Your task to perform on an android device: toggle notification dots Image 0: 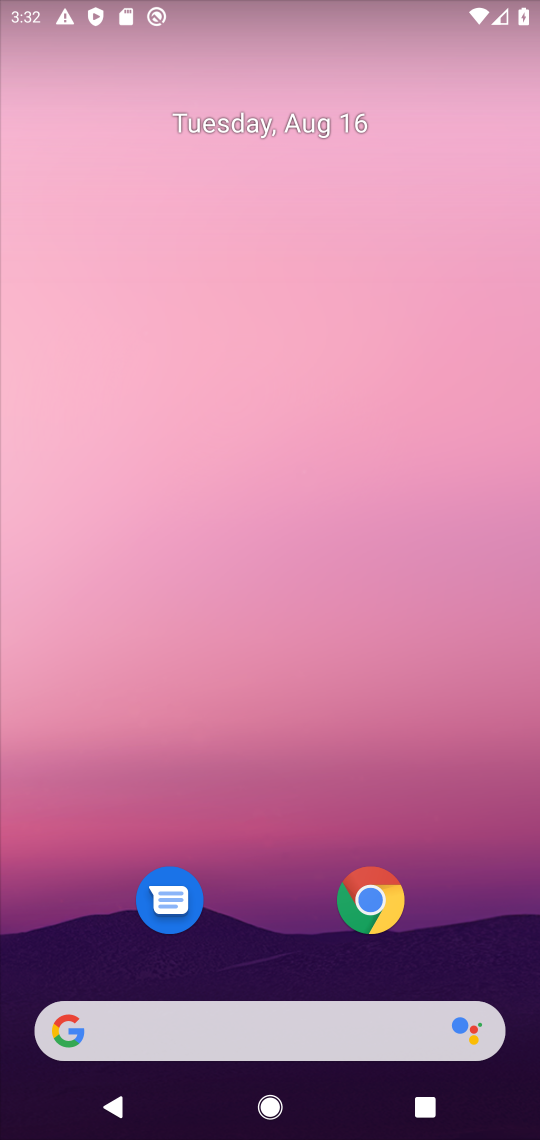
Step 0: drag from (253, 745) to (225, 5)
Your task to perform on an android device: toggle notification dots Image 1: 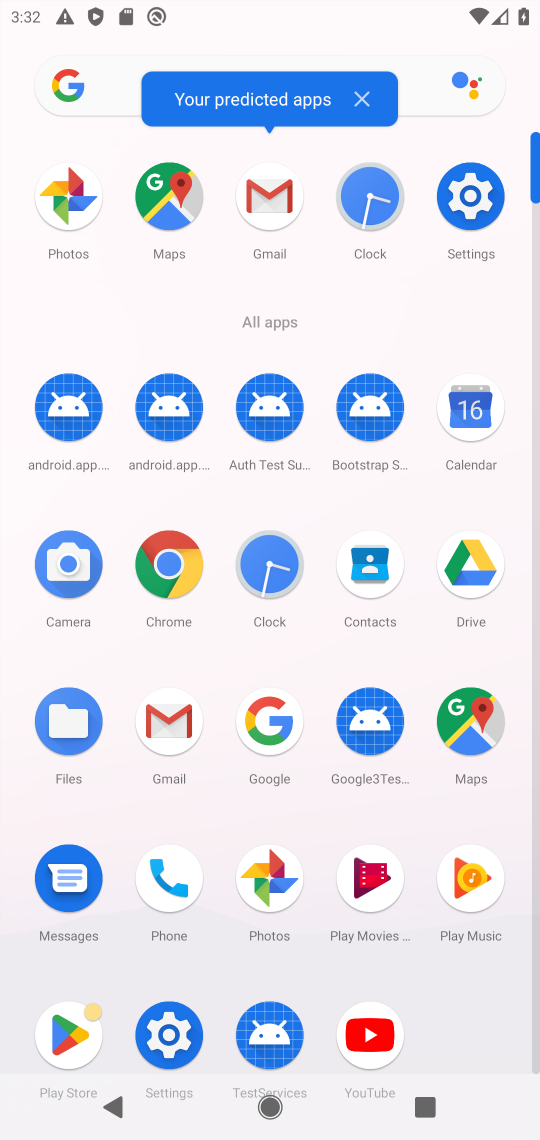
Step 1: drag from (281, 568) to (318, 189)
Your task to perform on an android device: toggle notification dots Image 2: 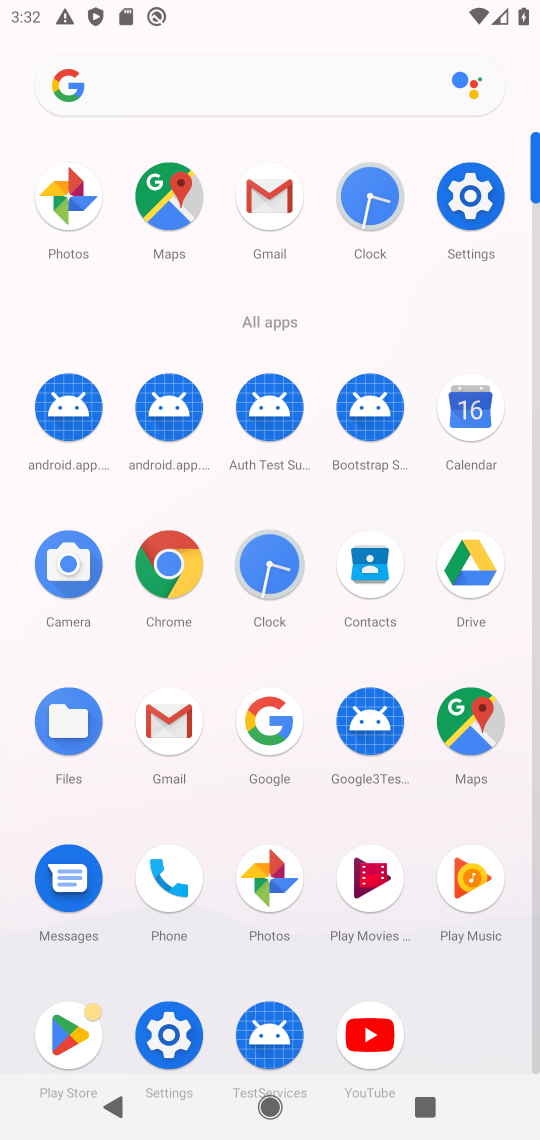
Step 2: drag from (295, 690) to (312, 151)
Your task to perform on an android device: toggle notification dots Image 3: 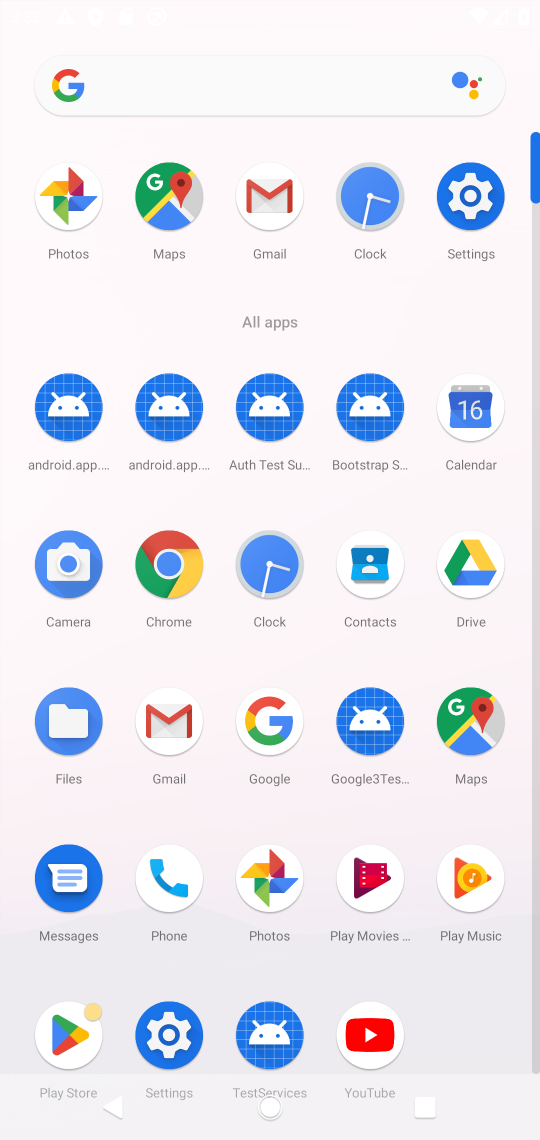
Step 3: click (478, 218)
Your task to perform on an android device: toggle notification dots Image 4: 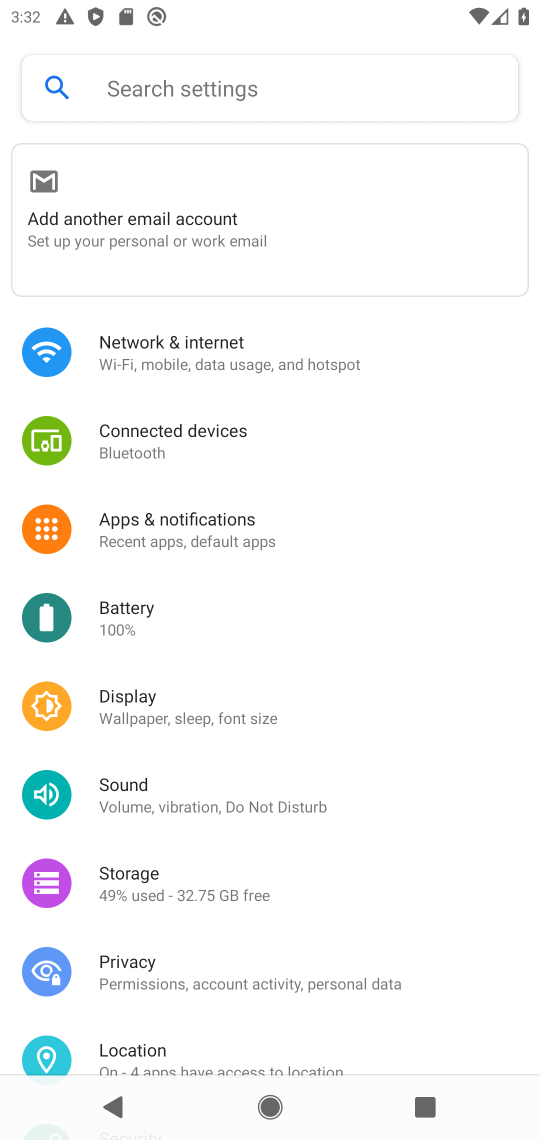
Step 4: click (245, 516)
Your task to perform on an android device: toggle notification dots Image 5: 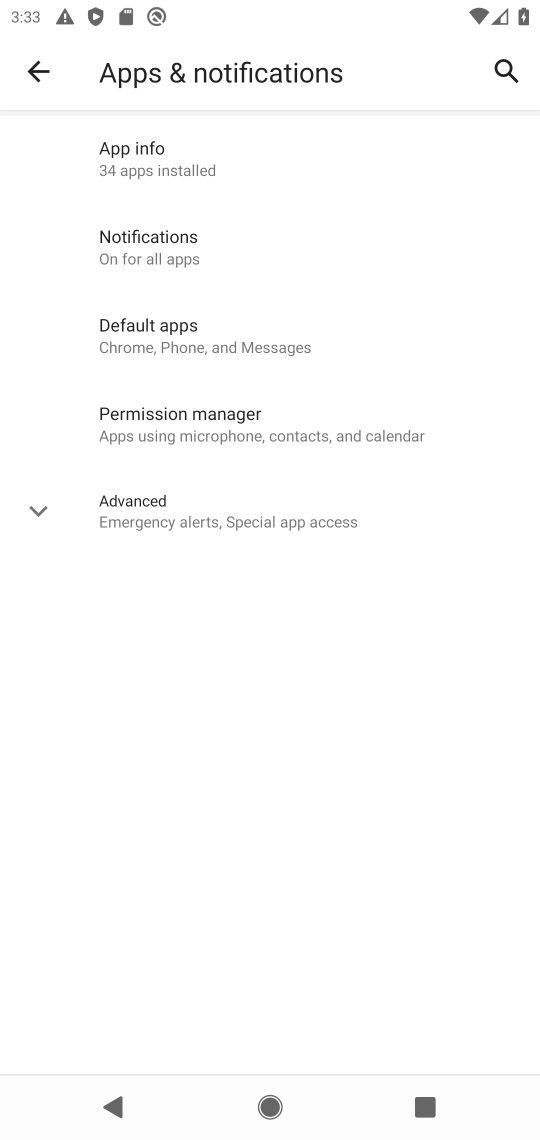
Step 5: click (165, 247)
Your task to perform on an android device: toggle notification dots Image 6: 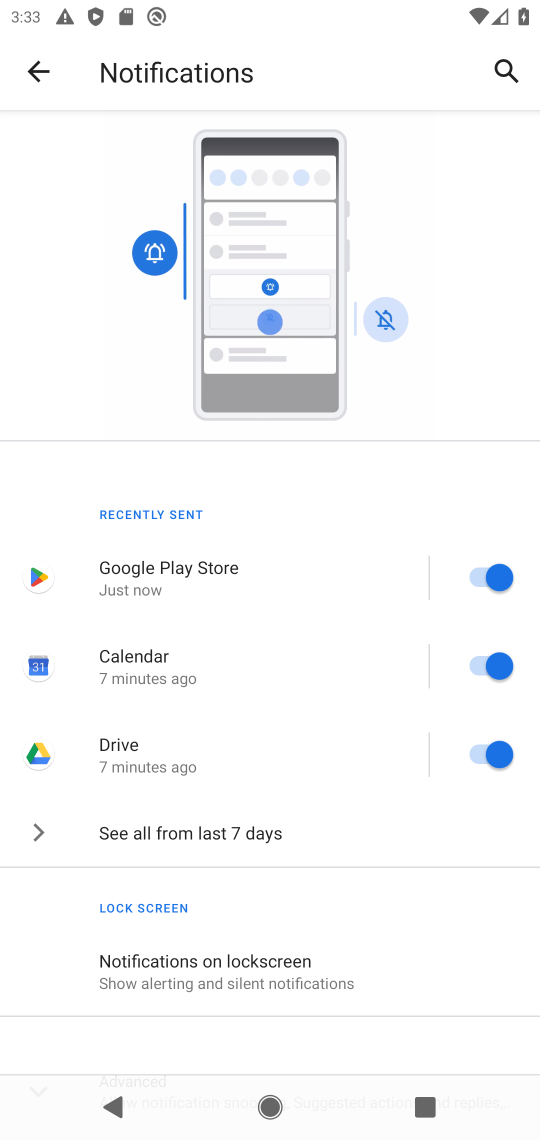
Step 6: drag from (189, 990) to (286, 426)
Your task to perform on an android device: toggle notification dots Image 7: 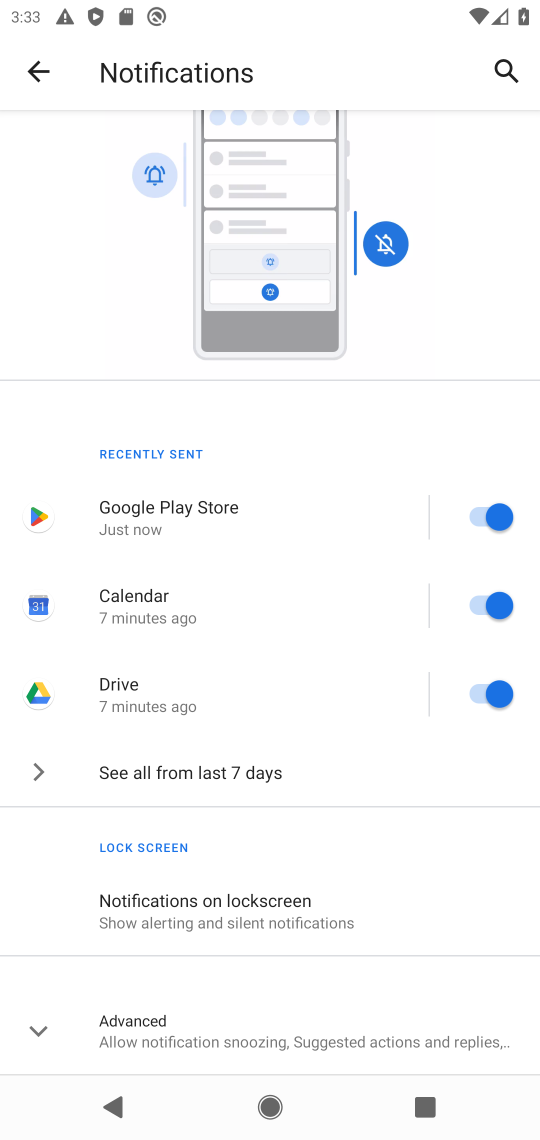
Step 7: click (154, 1037)
Your task to perform on an android device: toggle notification dots Image 8: 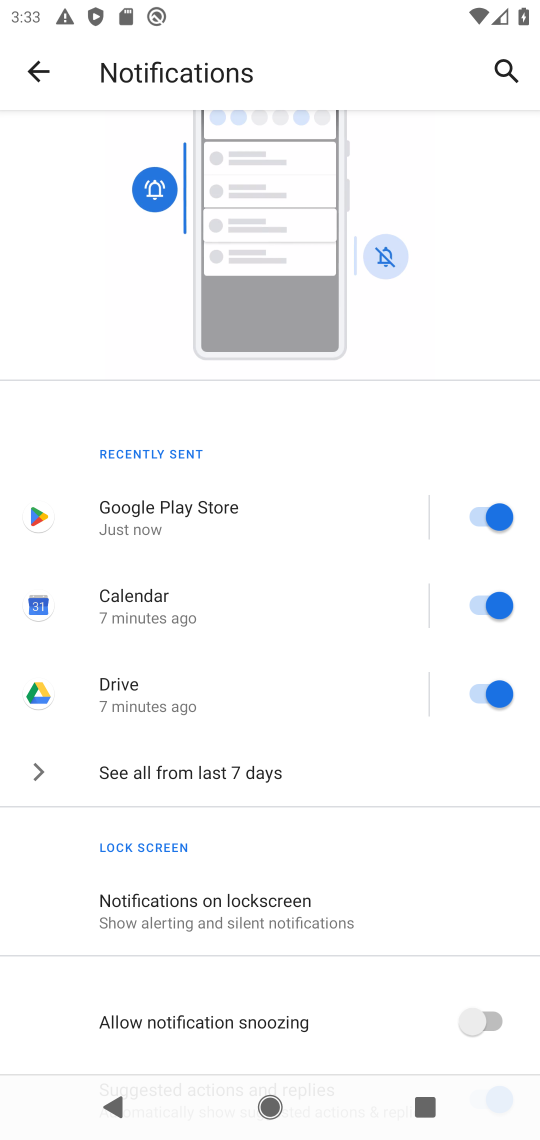
Step 8: drag from (182, 953) to (212, 409)
Your task to perform on an android device: toggle notification dots Image 9: 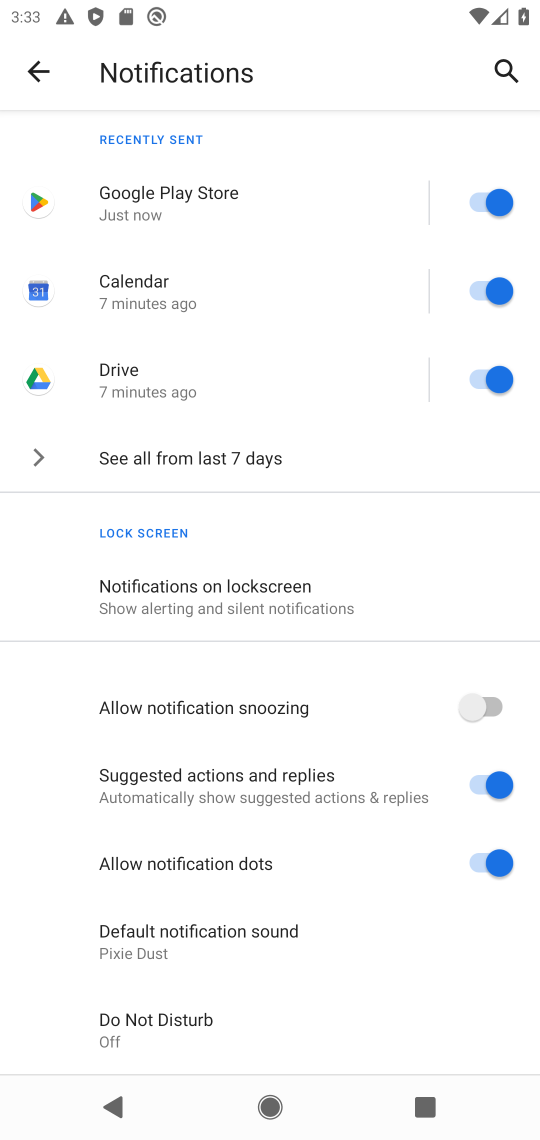
Step 9: click (460, 862)
Your task to perform on an android device: toggle notification dots Image 10: 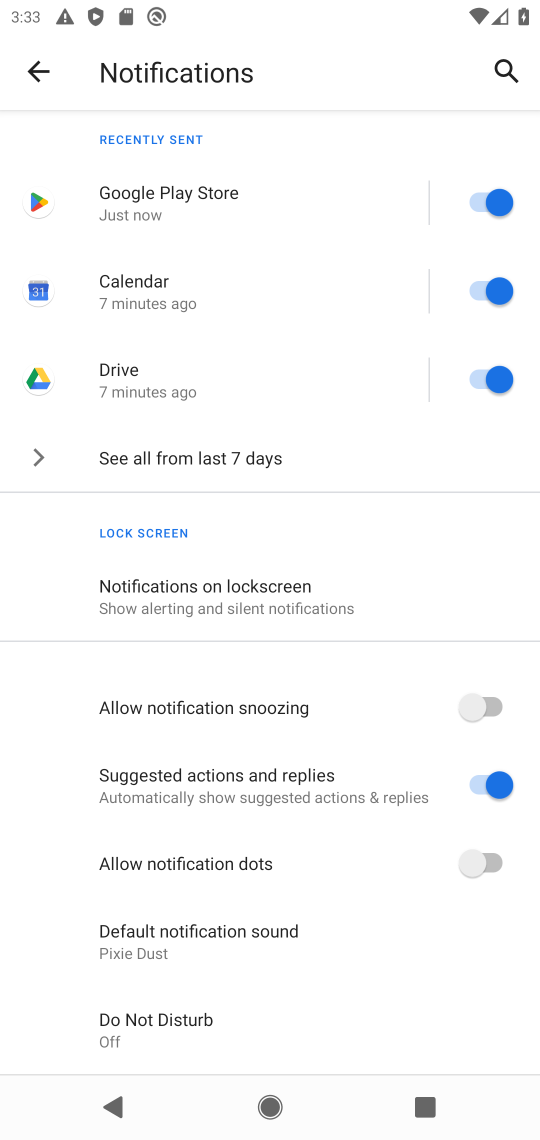
Step 10: task complete